Your task to perform on an android device: show emergency info Image 0: 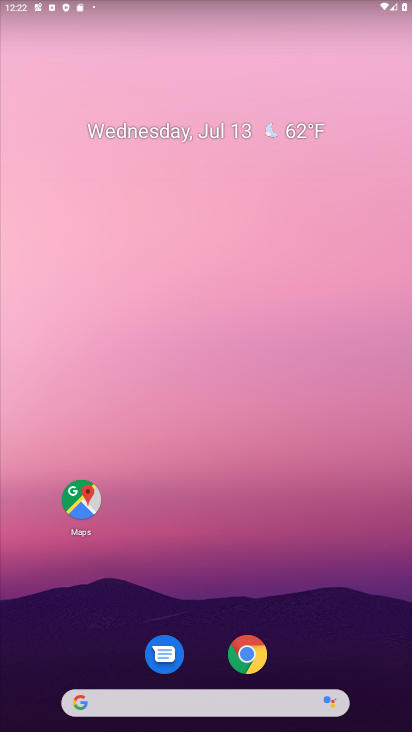
Step 0: drag from (248, 702) to (287, 45)
Your task to perform on an android device: show emergency info Image 1: 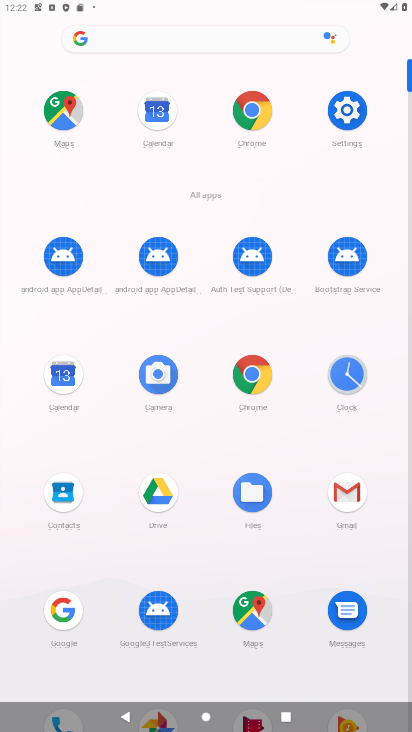
Step 1: click (351, 109)
Your task to perform on an android device: show emergency info Image 2: 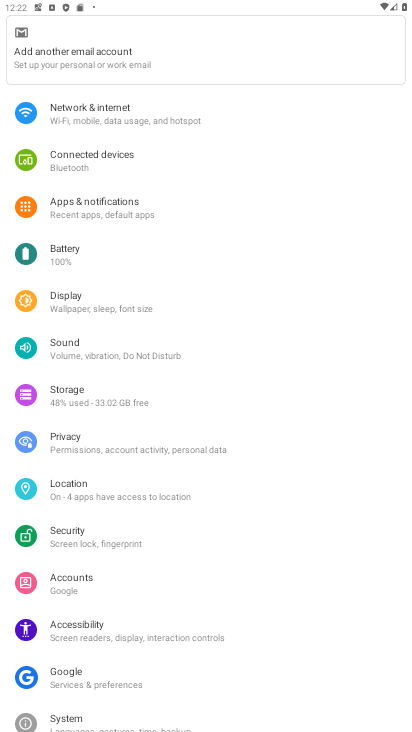
Step 2: drag from (162, 670) to (167, 447)
Your task to perform on an android device: show emergency info Image 3: 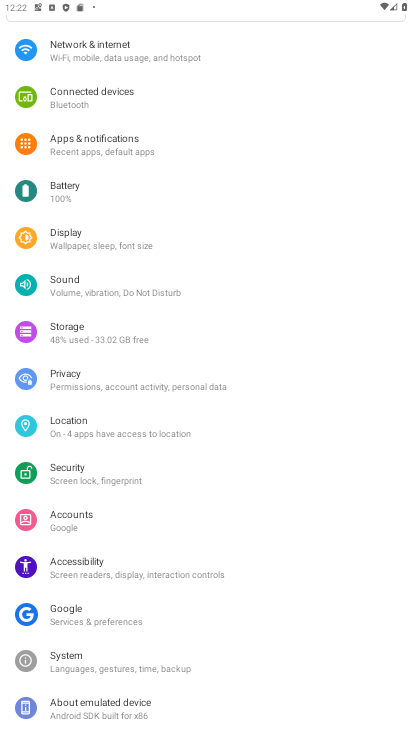
Step 3: click (109, 712)
Your task to perform on an android device: show emergency info Image 4: 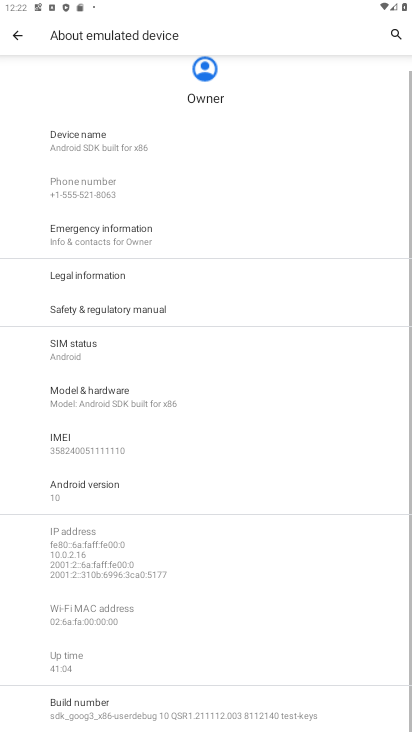
Step 4: task complete